Your task to perform on an android device: Do I have any events tomorrow? Image 0: 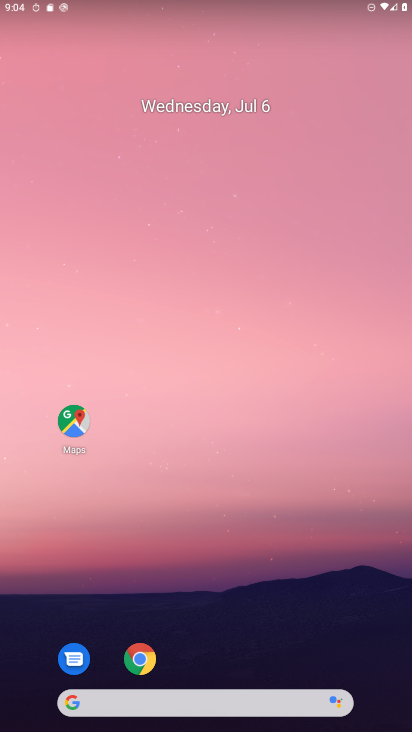
Step 0: drag from (345, 648) to (371, 223)
Your task to perform on an android device: Do I have any events tomorrow? Image 1: 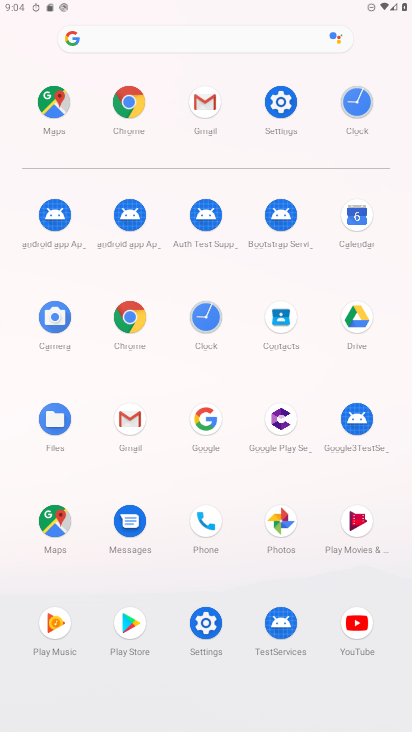
Step 1: click (356, 224)
Your task to perform on an android device: Do I have any events tomorrow? Image 2: 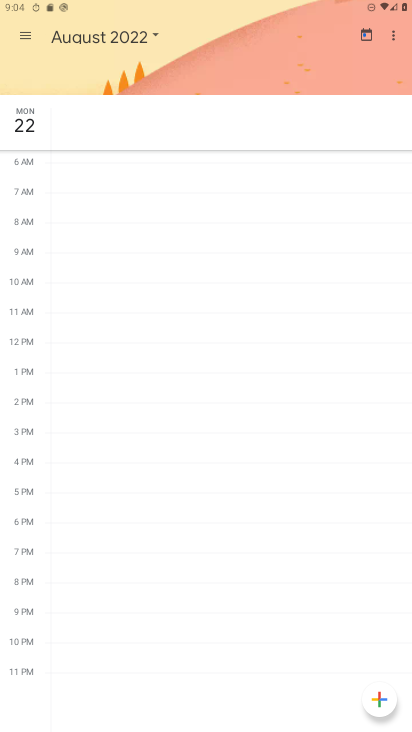
Step 2: click (356, 224)
Your task to perform on an android device: Do I have any events tomorrow? Image 3: 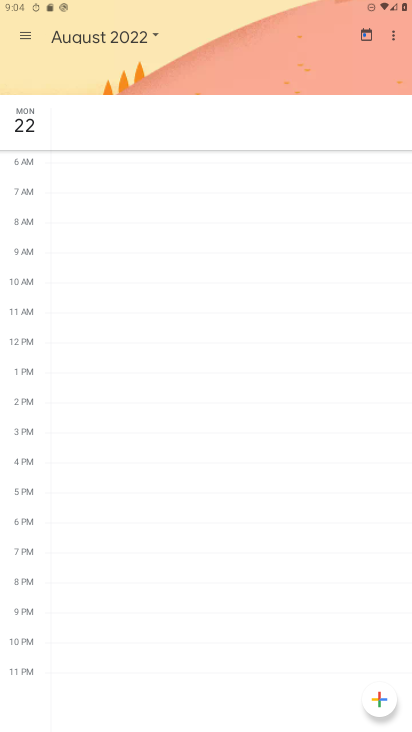
Step 3: click (22, 30)
Your task to perform on an android device: Do I have any events tomorrow? Image 4: 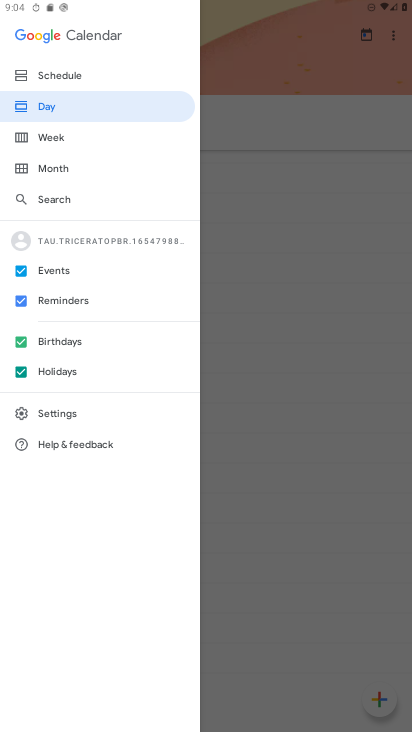
Step 4: click (55, 74)
Your task to perform on an android device: Do I have any events tomorrow? Image 5: 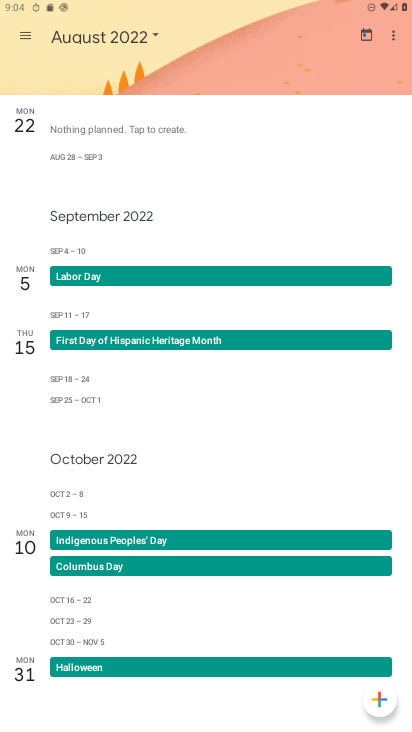
Step 5: click (160, 38)
Your task to perform on an android device: Do I have any events tomorrow? Image 6: 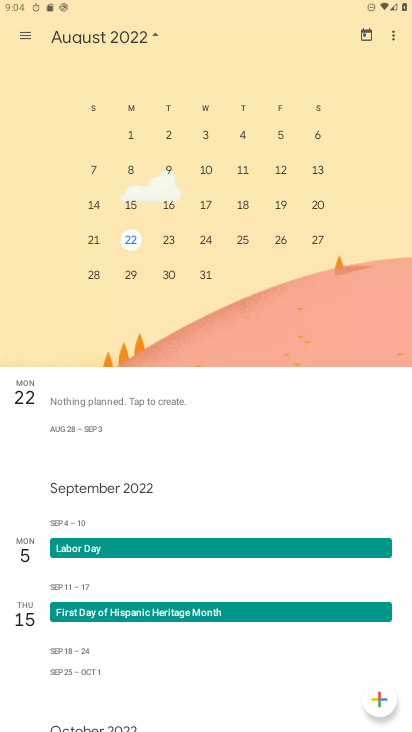
Step 6: drag from (79, 172) to (359, 171)
Your task to perform on an android device: Do I have any events tomorrow? Image 7: 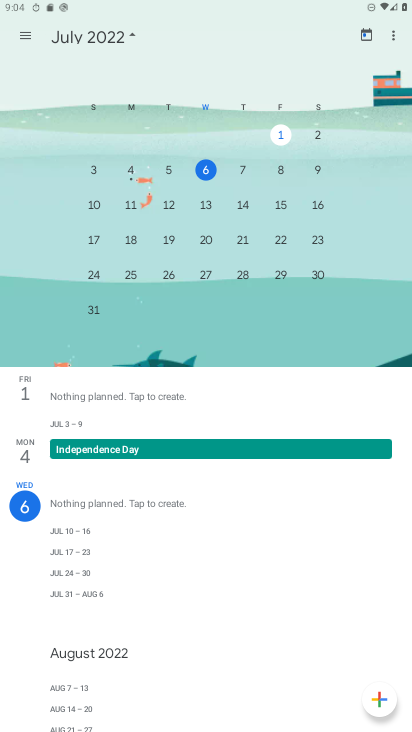
Step 7: click (281, 166)
Your task to perform on an android device: Do I have any events tomorrow? Image 8: 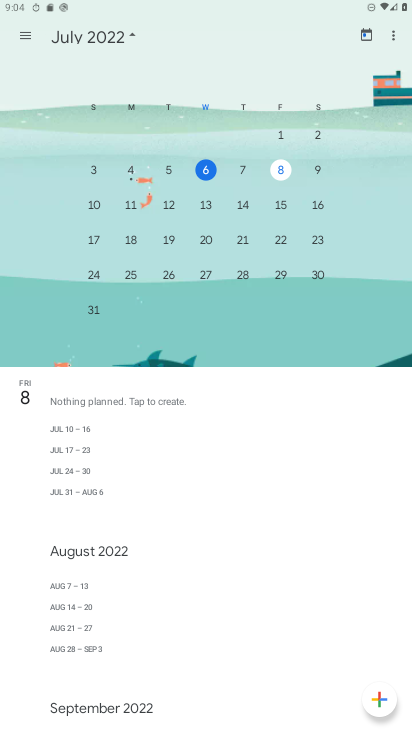
Step 8: drag from (227, 578) to (246, 367)
Your task to perform on an android device: Do I have any events tomorrow? Image 9: 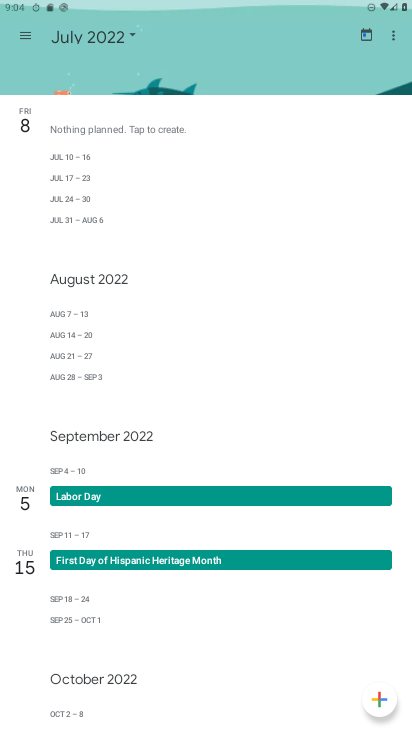
Step 9: click (130, 141)
Your task to perform on an android device: Do I have any events tomorrow? Image 10: 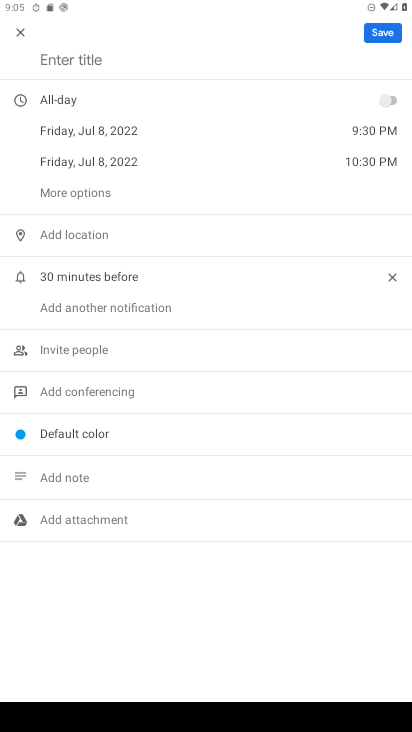
Step 10: task complete